Your task to perform on an android device: toggle javascript in the chrome app Image 0: 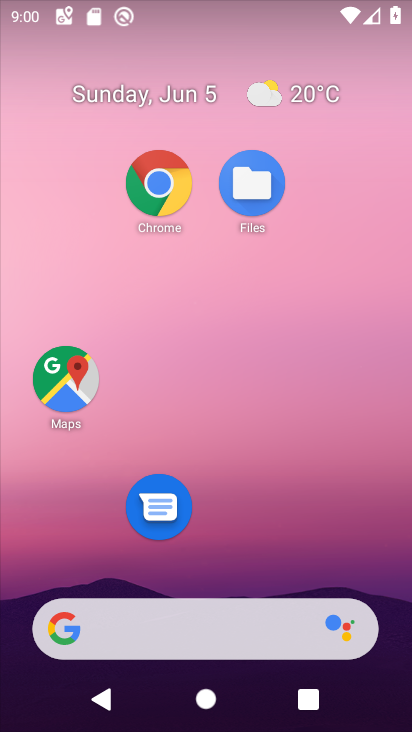
Step 0: click (159, 174)
Your task to perform on an android device: toggle javascript in the chrome app Image 1: 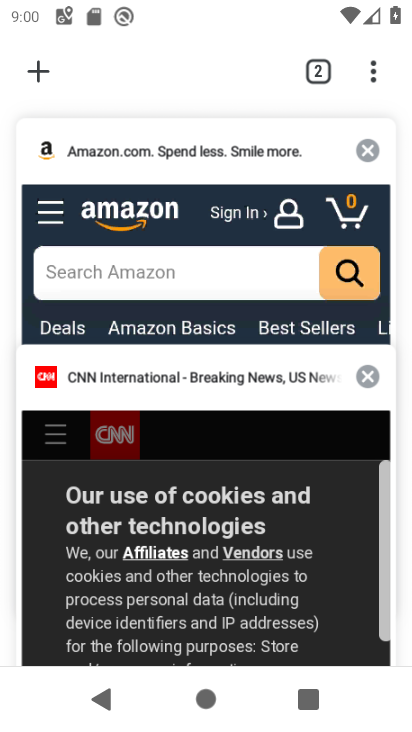
Step 1: click (215, 369)
Your task to perform on an android device: toggle javascript in the chrome app Image 2: 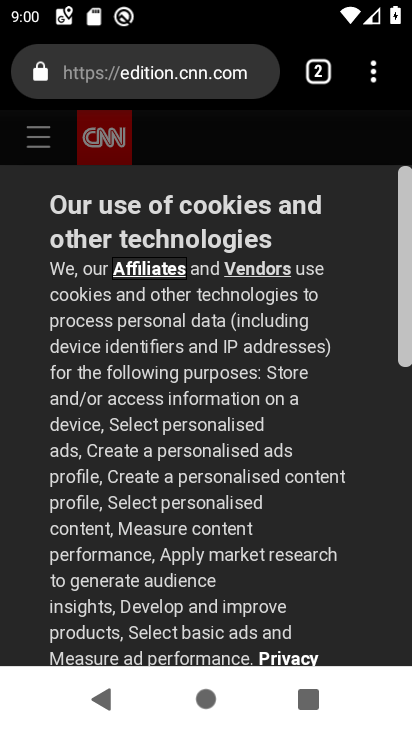
Step 2: click (369, 67)
Your task to perform on an android device: toggle javascript in the chrome app Image 3: 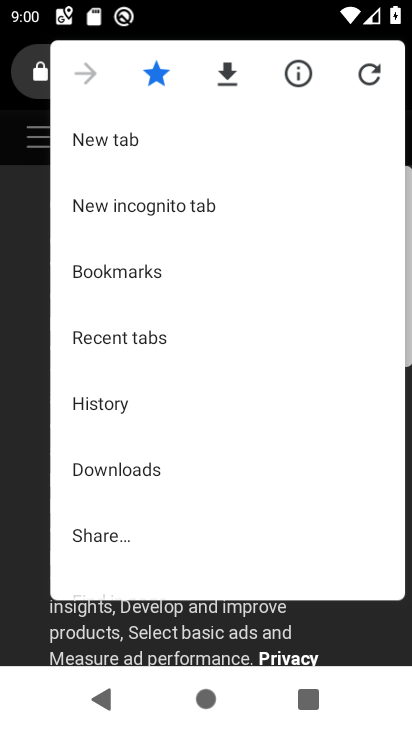
Step 3: drag from (198, 548) to (178, 133)
Your task to perform on an android device: toggle javascript in the chrome app Image 4: 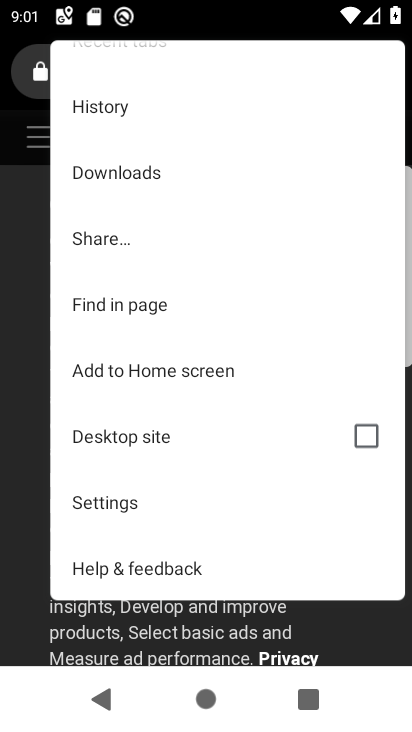
Step 4: click (96, 499)
Your task to perform on an android device: toggle javascript in the chrome app Image 5: 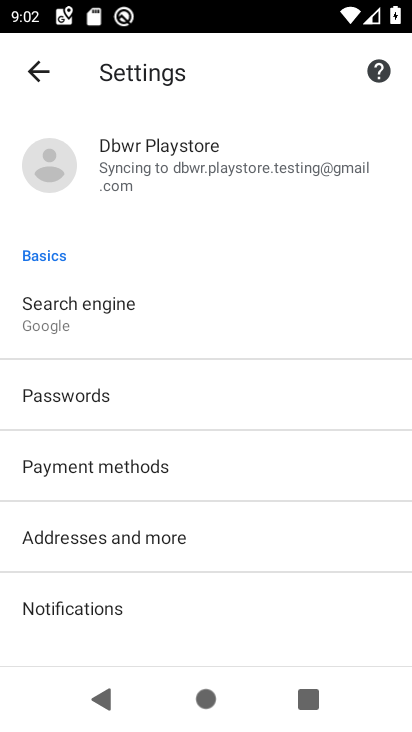
Step 5: drag from (96, 499) to (5, 257)
Your task to perform on an android device: toggle javascript in the chrome app Image 6: 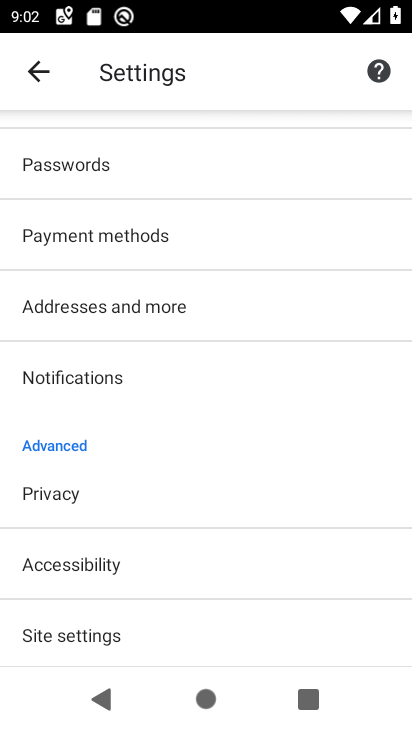
Step 6: click (80, 630)
Your task to perform on an android device: toggle javascript in the chrome app Image 7: 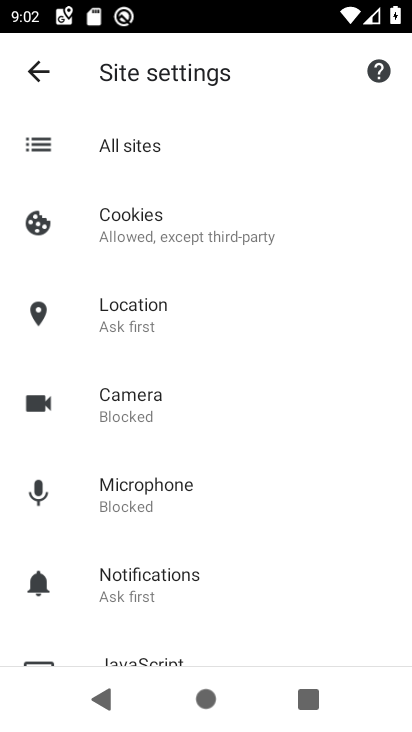
Step 7: click (80, 630)
Your task to perform on an android device: toggle javascript in the chrome app Image 8: 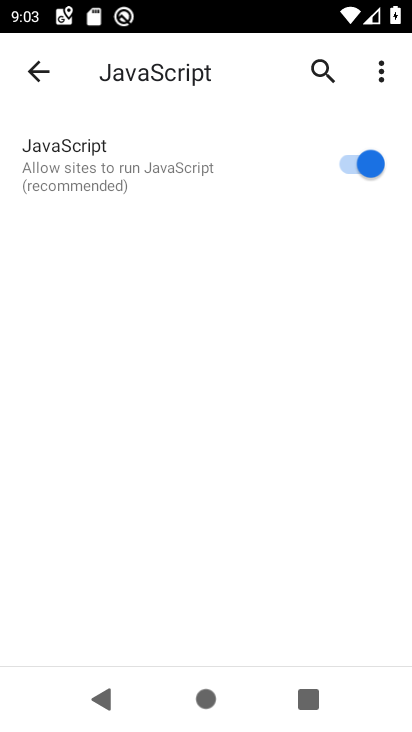
Step 8: click (42, 643)
Your task to perform on an android device: toggle javascript in the chrome app Image 9: 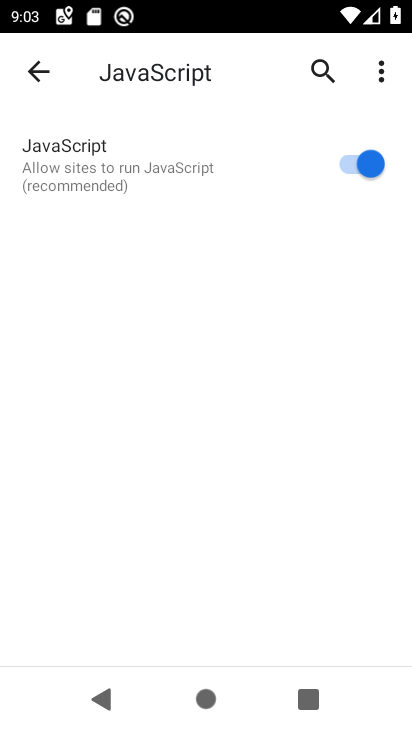
Step 9: click (355, 171)
Your task to perform on an android device: toggle javascript in the chrome app Image 10: 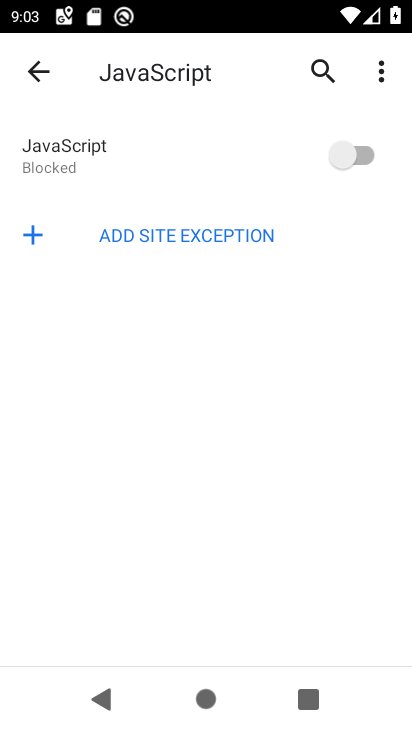
Step 10: task complete